Your task to perform on an android device: turn notification dots on Image 0: 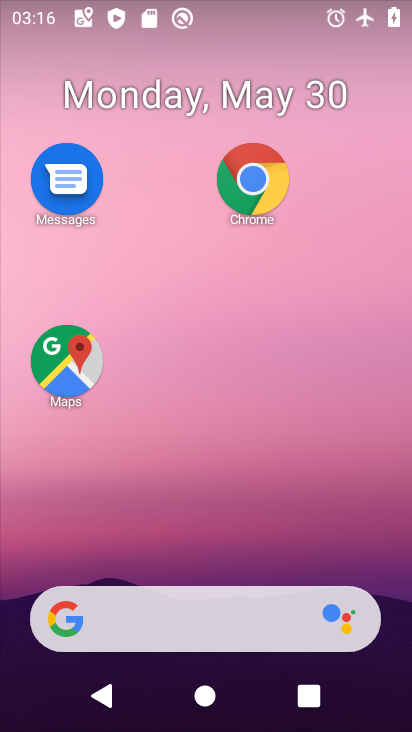
Step 0: drag from (248, 542) to (215, 17)
Your task to perform on an android device: turn notification dots on Image 1: 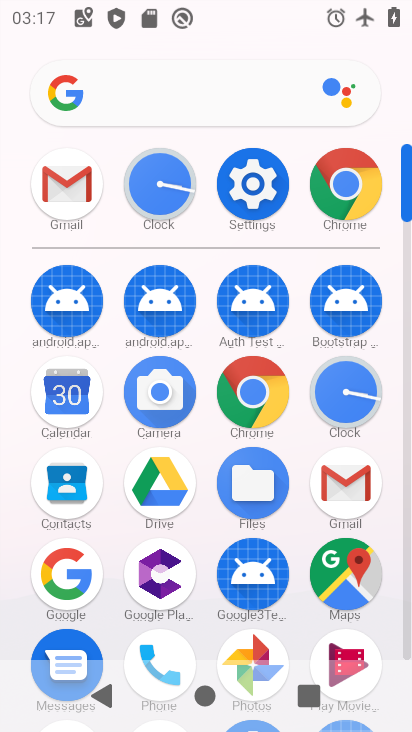
Step 1: click (254, 197)
Your task to perform on an android device: turn notification dots on Image 2: 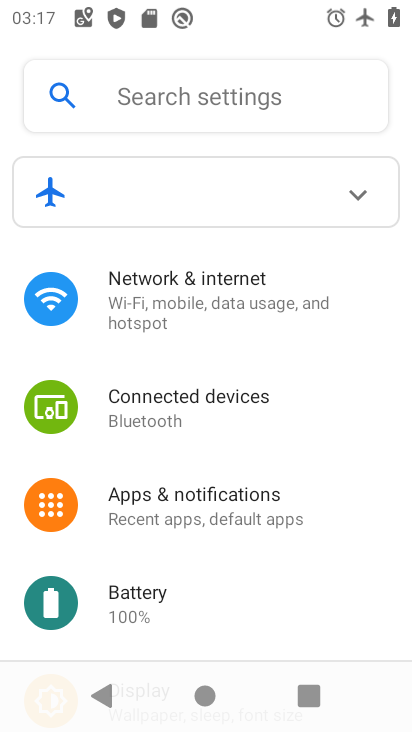
Step 2: click (190, 523)
Your task to perform on an android device: turn notification dots on Image 3: 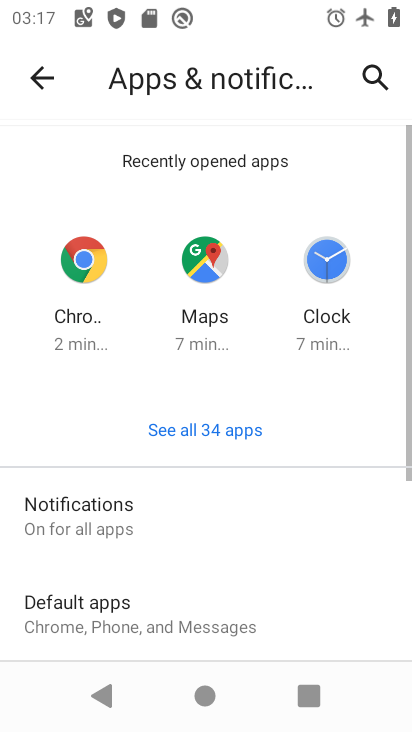
Step 3: drag from (210, 615) to (289, 190)
Your task to perform on an android device: turn notification dots on Image 4: 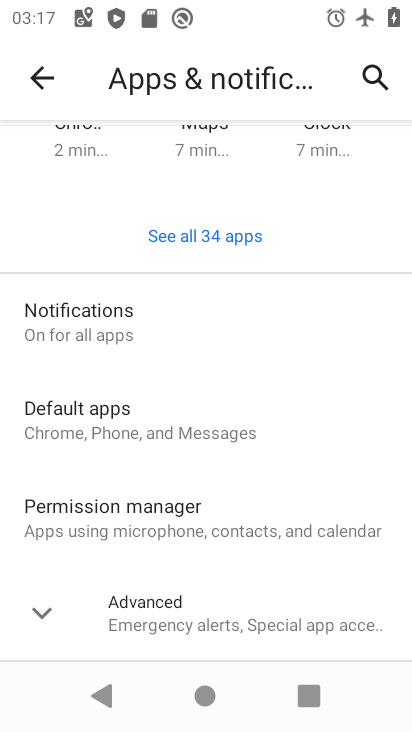
Step 4: click (134, 630)
Your task to perform on an android device: turn notification dots on Image 5: 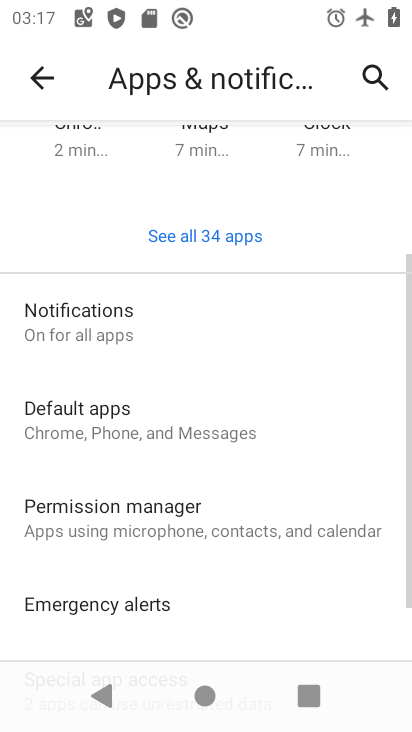
Step 5: drag from (161, 605) to (274, 188)
Your task to perform on an android device: turn notification dots on Image 6: 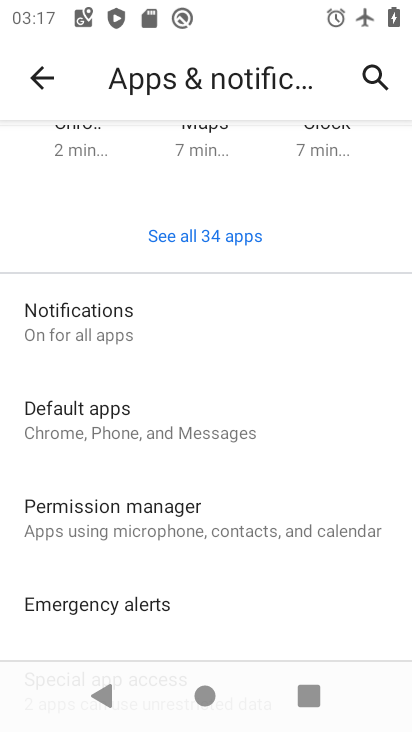
Step 6: drag from (167, 554) to (241, 101)
Your task to perform on an android device: turn notification dots on Image 7: 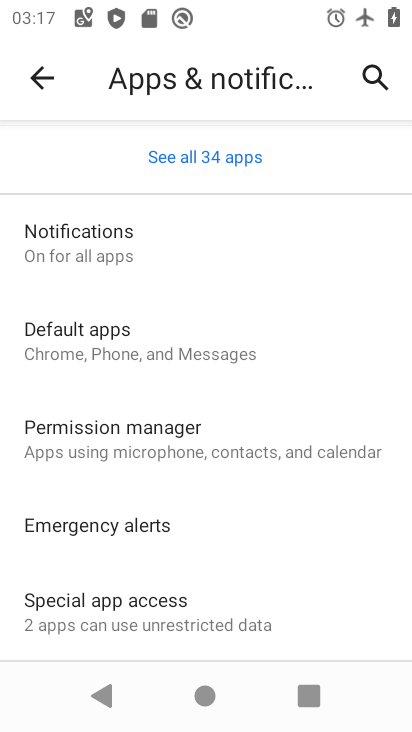
Step 7: click (91, 260)
Your task to perform on an android device: turn notification dots on Image 8: 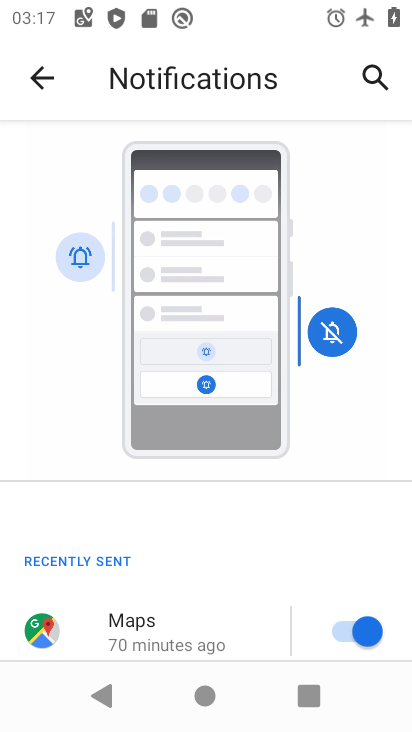
Step 8: drag from (148, 612) to (277, 152)
Your task to perform on an android device: turn notification dots on Image 9: 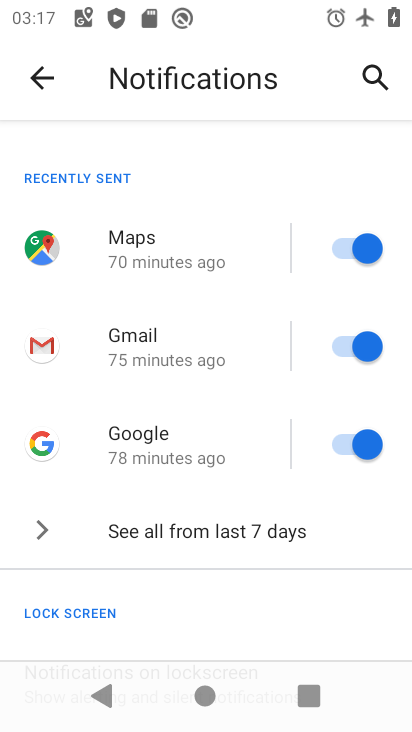
Step 9: drag from (204, 598) to (309, 76)
Your task to perform on an android device: turn notification dots on Image 10: 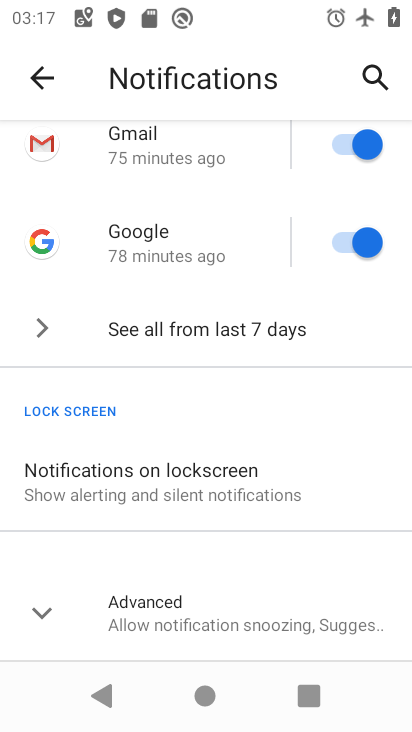
Step 10: click (126, 625)
Your task to perform on an android device: turn notification dots on Image 11: 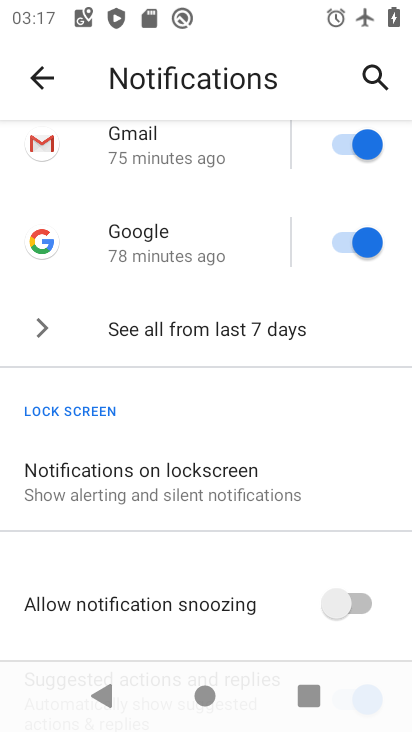
Step 11: drag from (234, 610) to (290, 229)
Your task to perform on an android device: turn notification dots on Image 12: 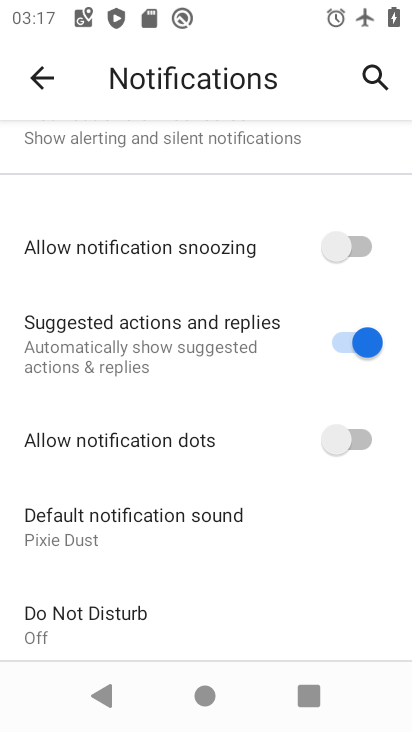
Step 12: click (370, 442)
Your task to perform on an android device: turn notification dots on Image 13: 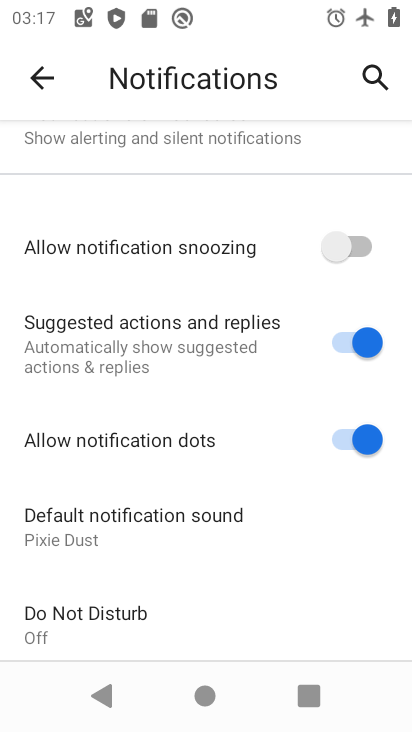
Step 13: task complete